Your task to perform on an android device: change the clock display to show seconds Image 0: 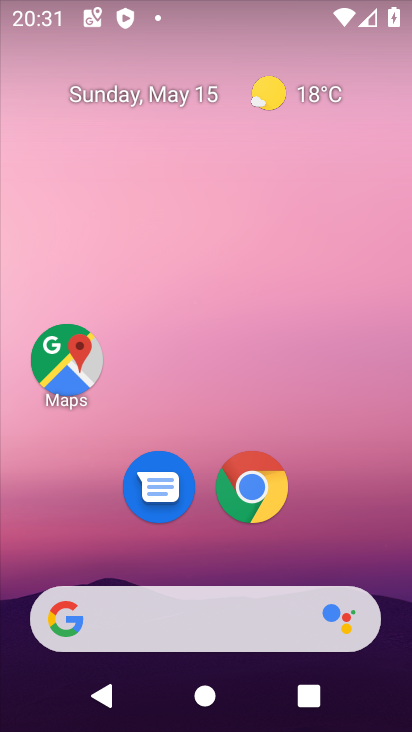
Step 0: drag from (404, 530) to (405, 234)
Your task to perform on an android device: change the clock display to show seconds Image 1: 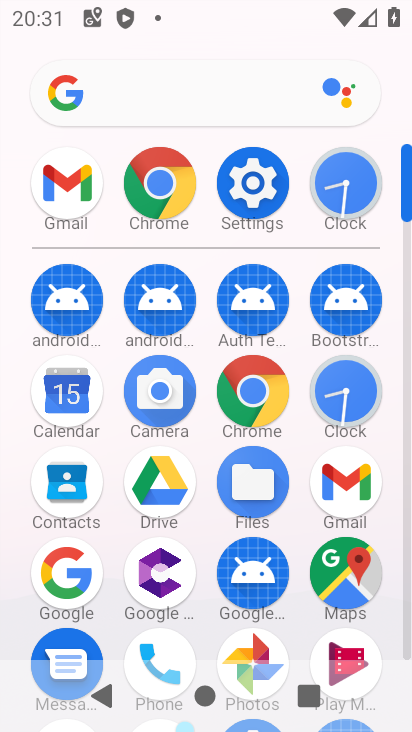
Step 1: click (350, 379)
Your task to perform on an android device: change the clock display to show seconds Image 2: 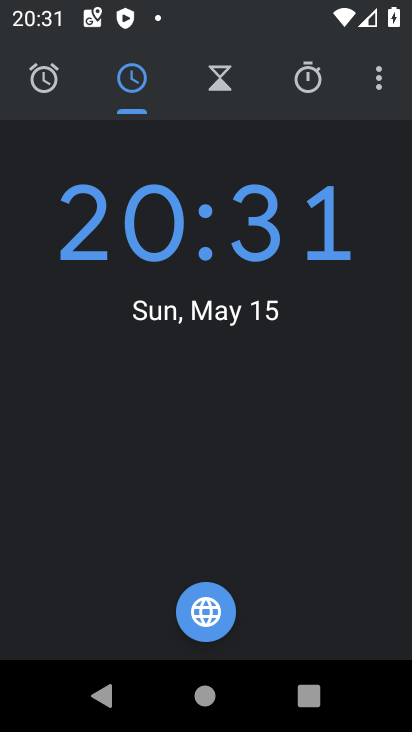
Step 2: click (374, 77)
Your task to perform on an android device: change the clock display to show seconds Image 3: 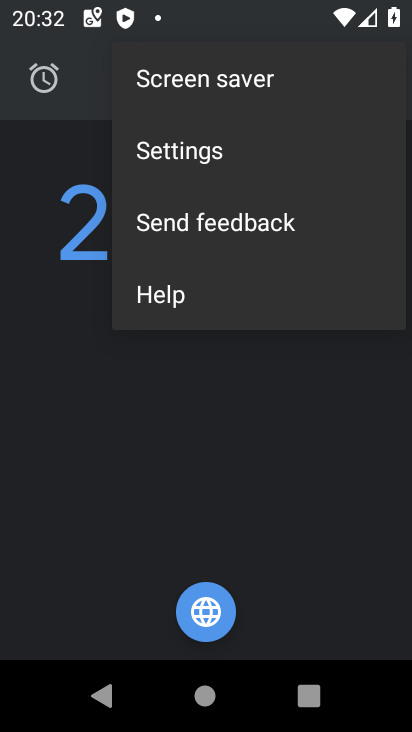
Step 3: click (188, 150)
Your task to perform on an android device: change the clock display to show seconds Image 4: 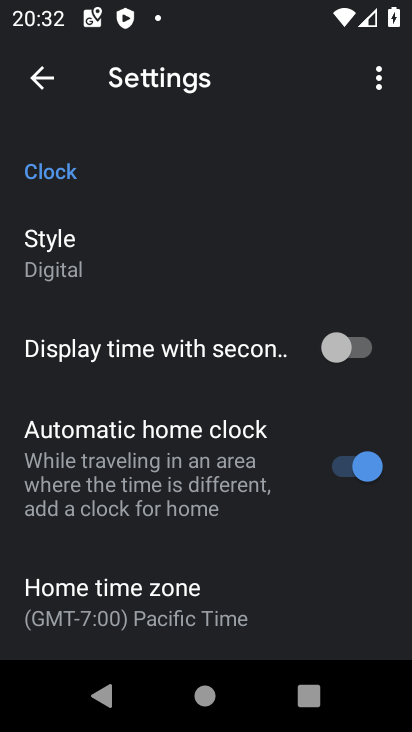
Step 4: click (362, 351)
Your task to perform on an android device: change the clock display to show seconds Image 5: 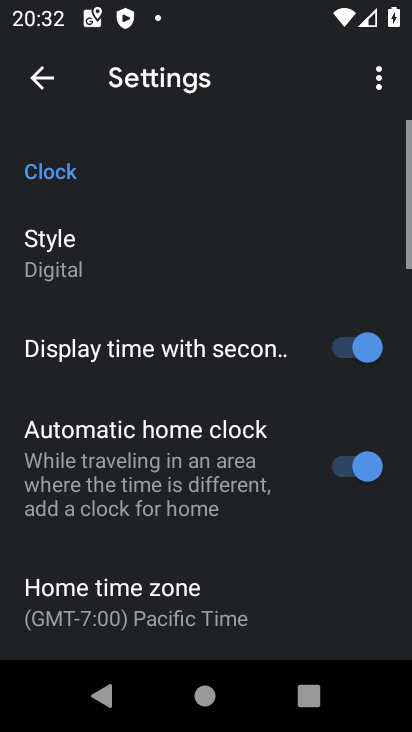
Step 5: task complete